Your task to perform on an android device: open chrome privacy settings Image 0: 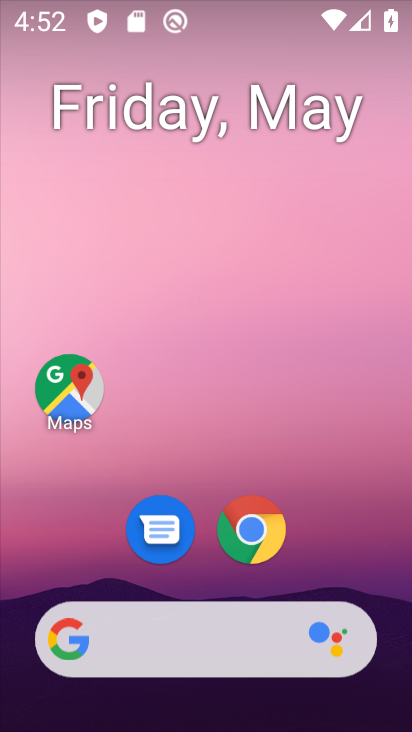
Step 0: click (243, 530)
Your task to perform on an android device: open chrome privacy settings Image 1: 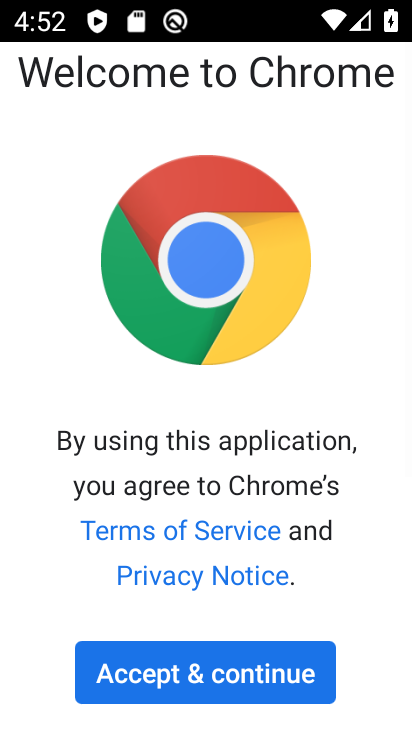
Step 1: click (283, 680)
Your task to perform on an android device: open chrome privacy settings Image 2: 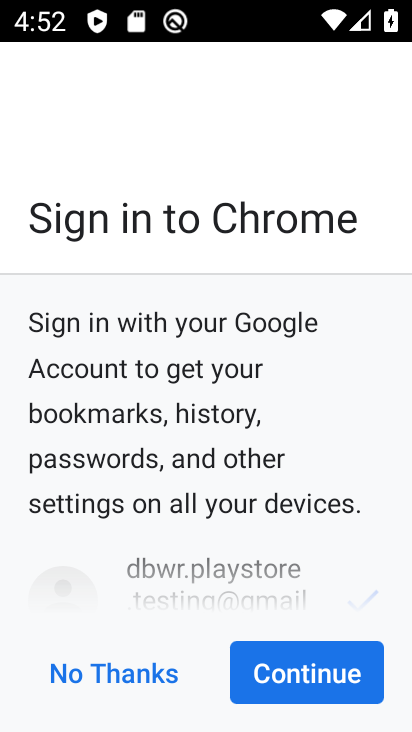
Step 2: click (283, 680)
Your task to perform on an android device: open chrome privacy settings Image 3: 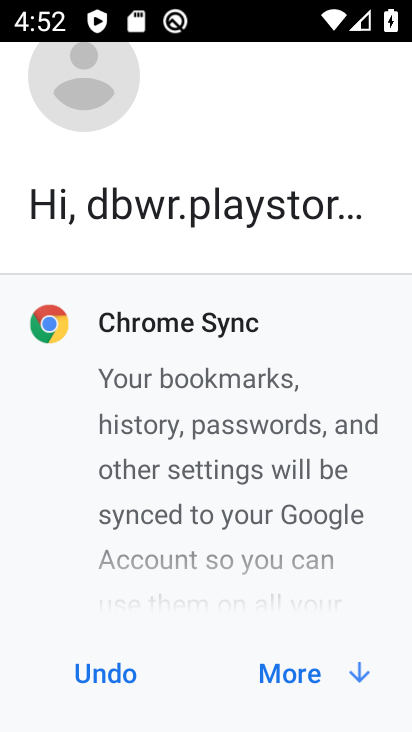
Step 3: click (283, 680)
Your task to perform on an android device: open chrome privacy settings Image 4: 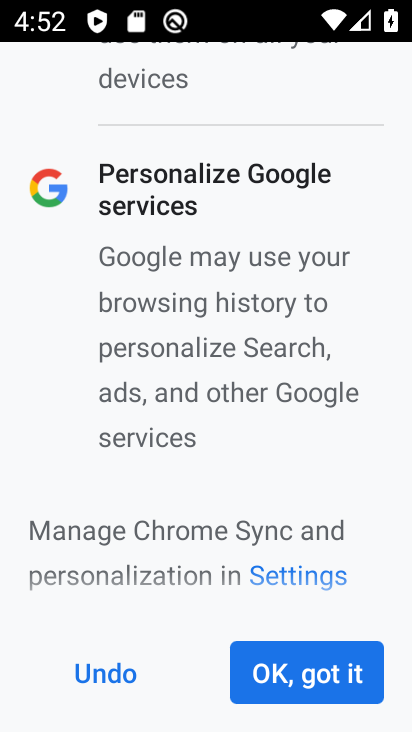
Step 4: click (283, 680)
Your task to perform on an android device: open chrome privacy settings Image 5: 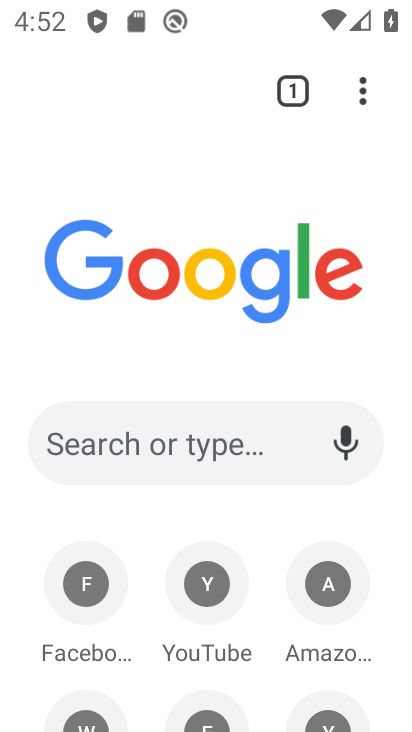
Step 5: click (357, 93)
Your task to perform on an android device: open chrome privacy settings Image 6: 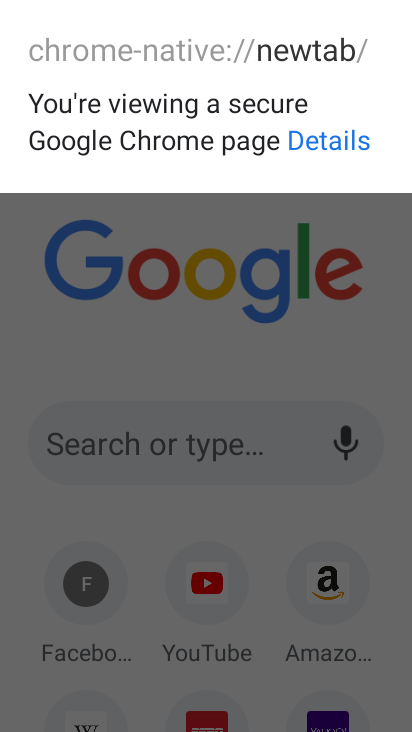
Step 6: click (284, 231)
Your task to perform on an android device: open chrome privacy settings Image 7: 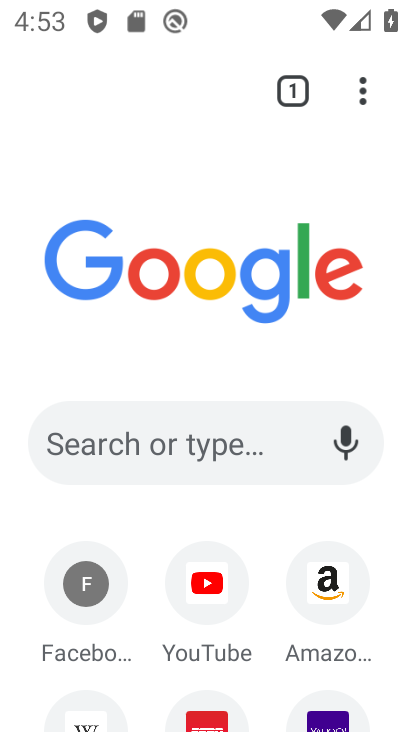
Step 7: click (341, 95)
Your task to perform on an android device: open chrome privacy settings Image 8: 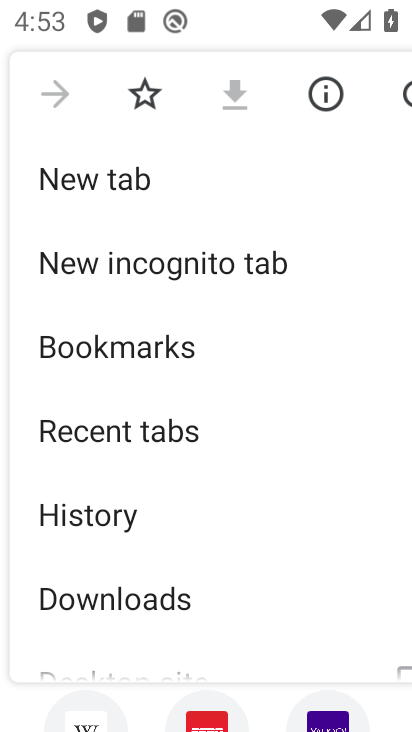
Step 8: drag from (77, 570) to (166, 131)
Your task to perform on an android device: open chrome privacy settings Image 9: 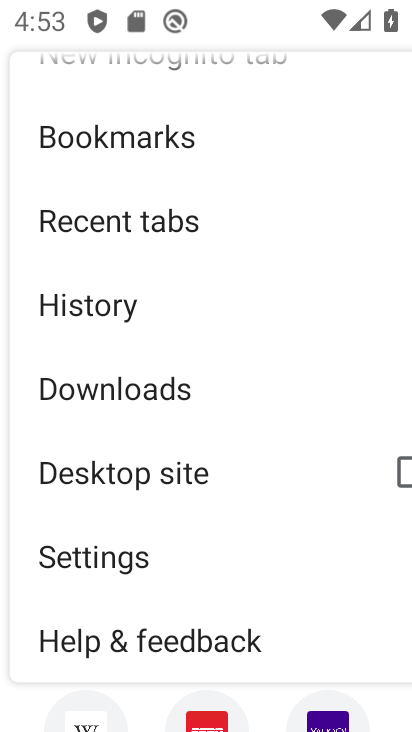
Step 9: click (123, 583)
Your task to perform on an android device: open chrome privacy settings Image 10: 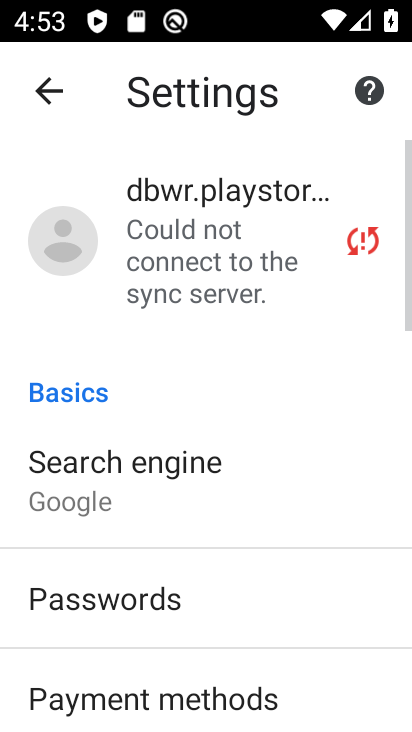
Step 10: drag from (123, 583) to (224, 124)
Your task to perform on an android device: open chrome privacy settings Image 11: 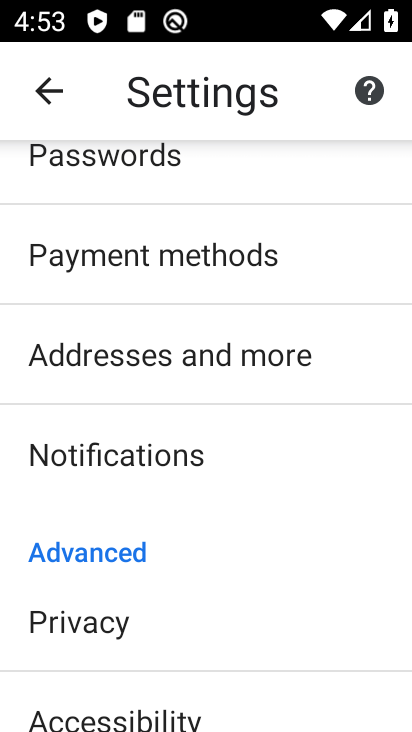
Step 11: click (65, 657)
Your task to perform on an android device: open chrome privacy settings Image 12: 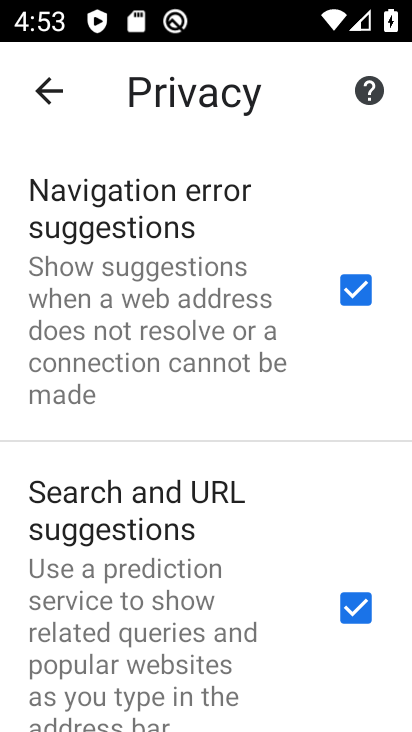
Step 12: task complete